Your task to perform on an android device: change your default location settings in chrome Image 0: 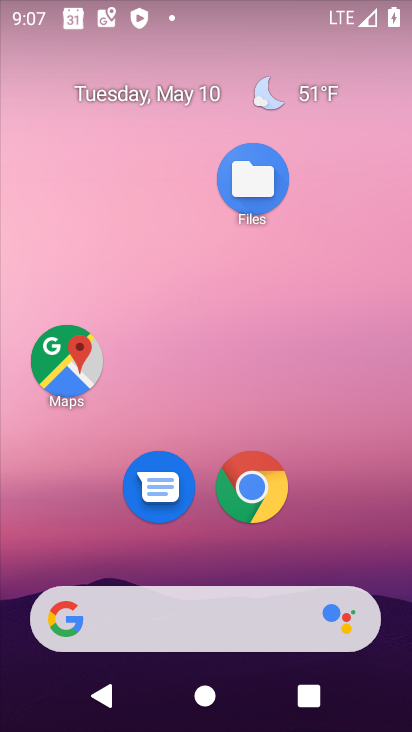
Step 0: click (252, 490)
Your task to perform on an android device: change your default location settings in chrome Image 1: 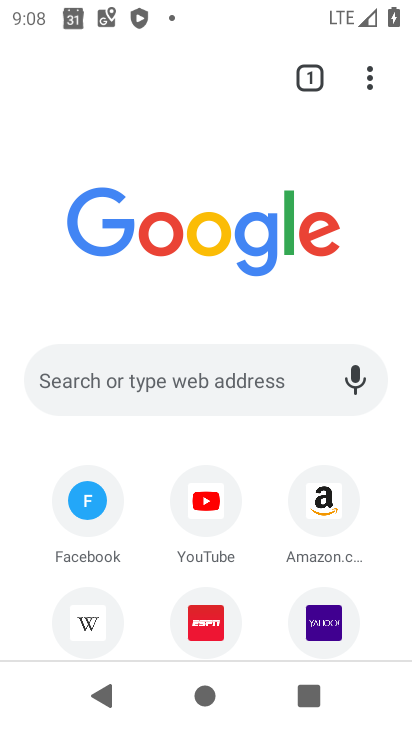
Step 1: click (357, 83)
Your task to perform on an android device: change your default location settings in chrome Image 2: 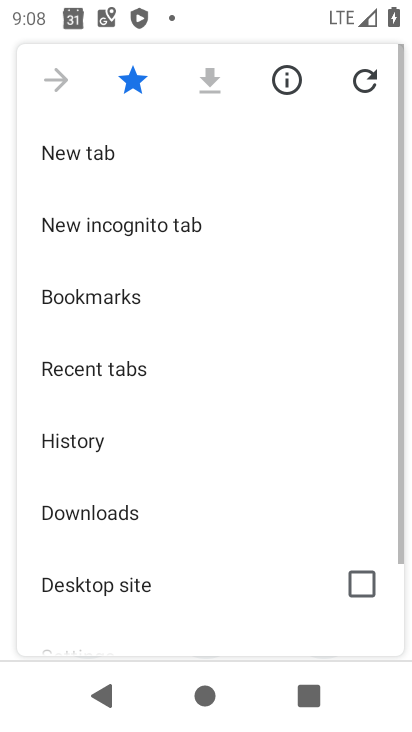
Step 2: drag from (221, 577) to (127, 169)
Your task to perform on an android device: change your default location settings in chrome Image 3: 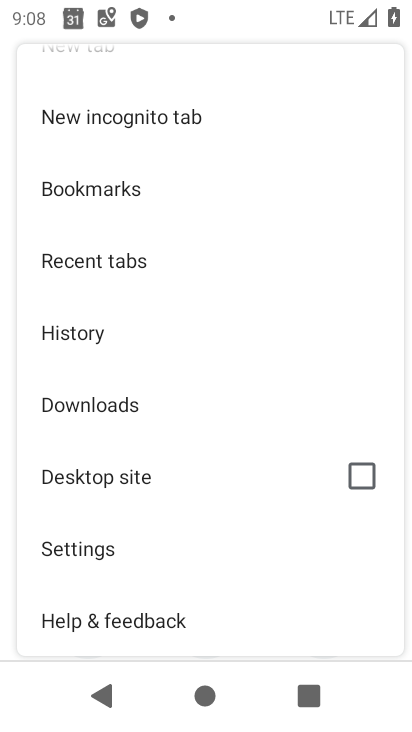
Step 3: click (125, 536)
Your task to perform on an android device: change your default location settings in chrome Image 4: 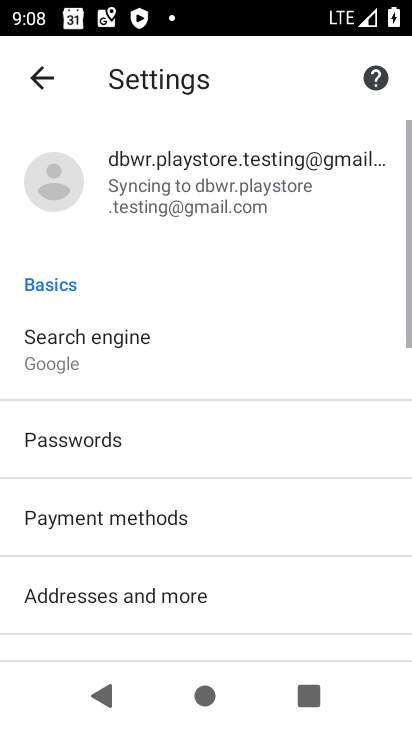
Step 4: click (143, 347)
Your task to perform on an android device: change your default location settings in chrome Image 5: 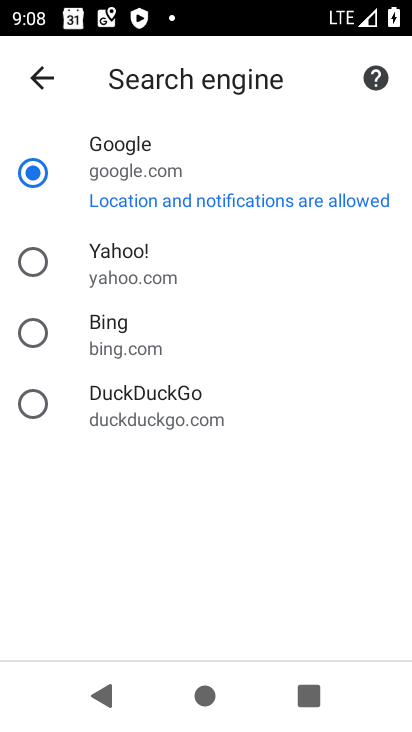
Step 5: task complete